Your task to perform on an android device: turn off smart reply in the gmail app Image 0: 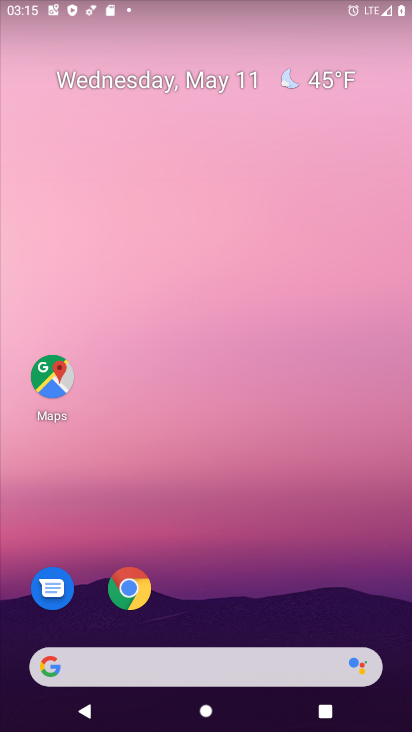
Step 0: drag from (212, 620) to (214, 215)
Your task to perform on an android device: turn off smart reply in the gmail app Image 1: 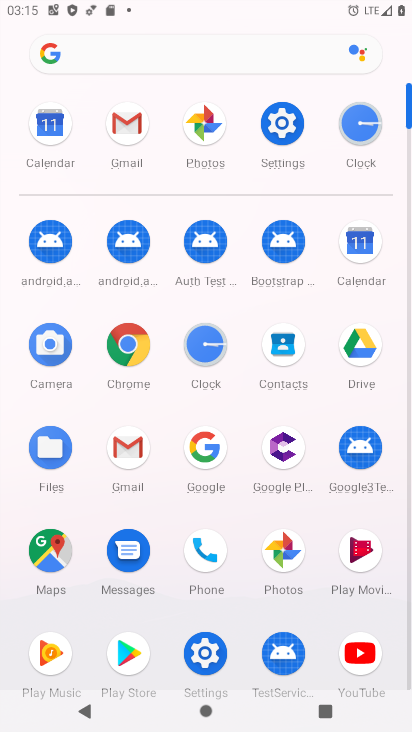
Step 1: click (133, 135)
Your task to perform on an android device: turn off smart reply in the gmail app Image 2: 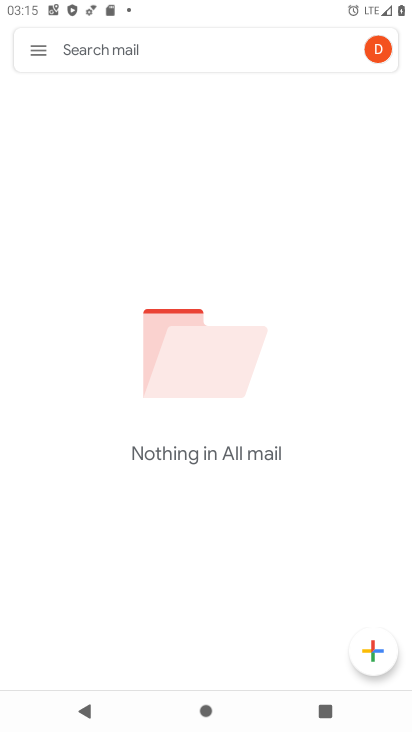
Step 2: click (44, 53)
Your task to perform on an android device: turn off smart reply in the gmail app Image 3: 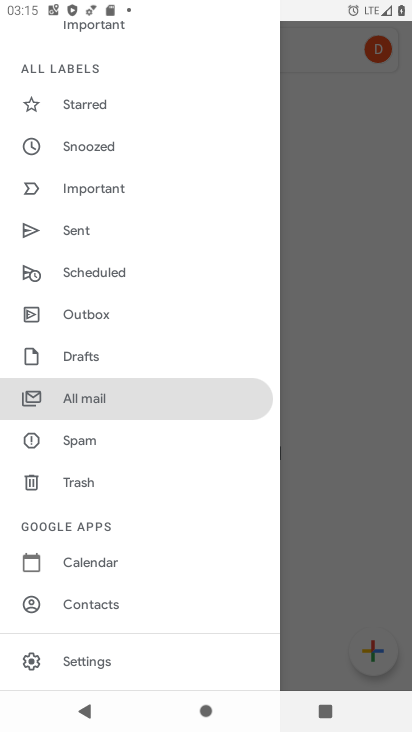
Step 3: click (127, 652)
Your task to perform on an android device: turn off smart reply in the gmail app Image 4: 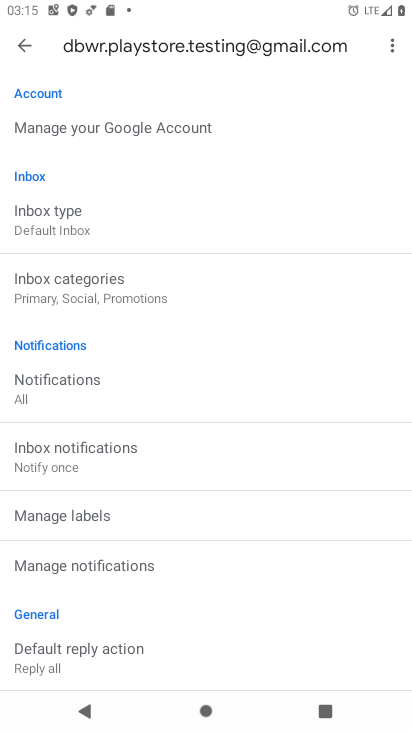
Step 4: drag from (134, 646) to (224, 459)
Your task to perform on an android device: turn off smart reply in the gmail app Image 5: 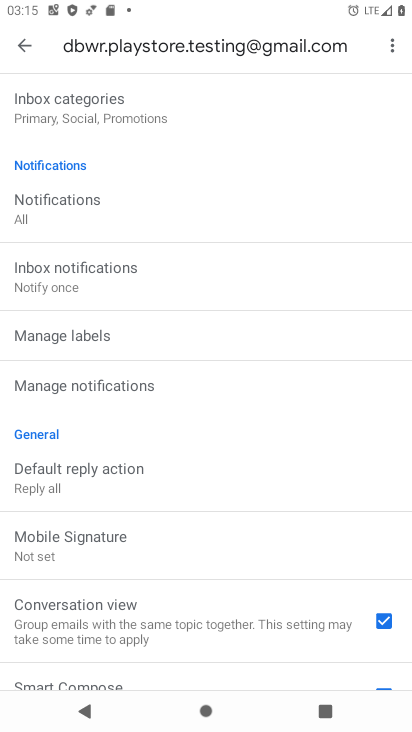
Step 5: drag from (206, 635) to (211, 366)
Your task to perform on an android device: turn off smart reply in the gmail app Image 6: 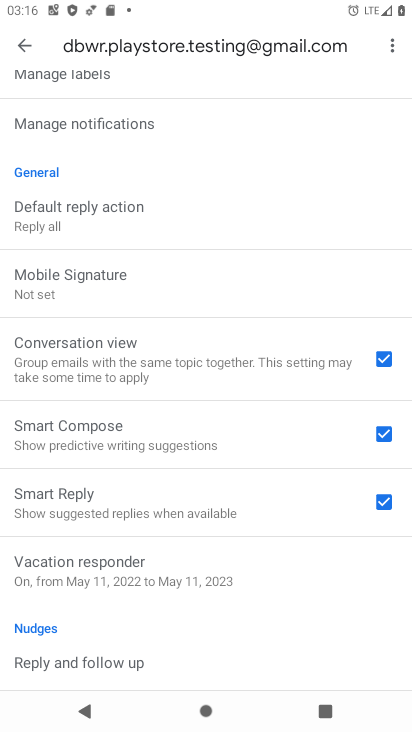
Step 6: click (381, 500)
Your task to perform on an android device: turn off smart reply in the gmail app Image 7: 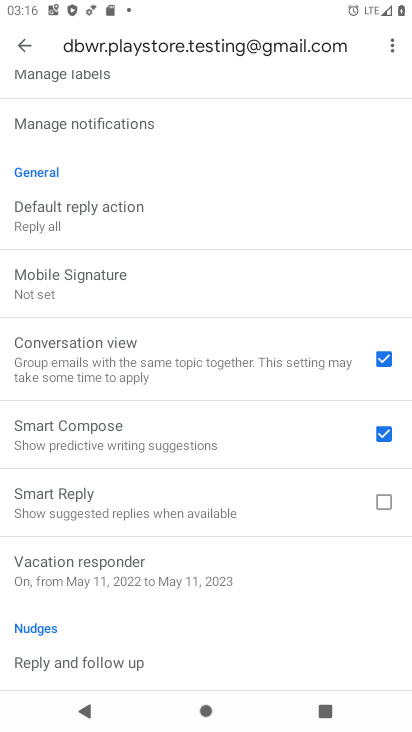
Step 7: task complete